Your task to perform on an android device: Open Amazon Image 0: 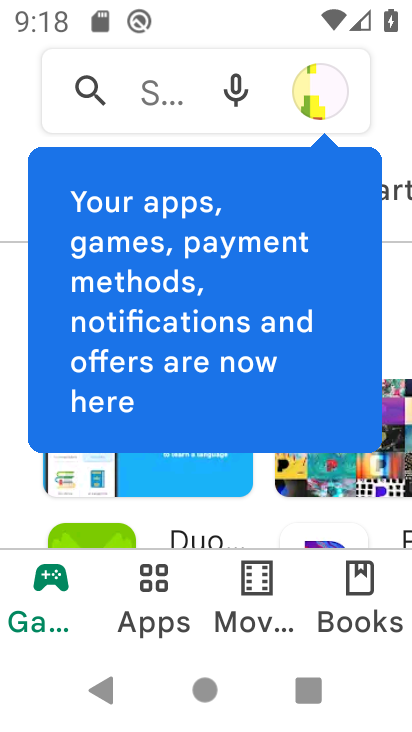
Step 0: press home button
Your task to perform on an android device: Open Amazon Image 1: 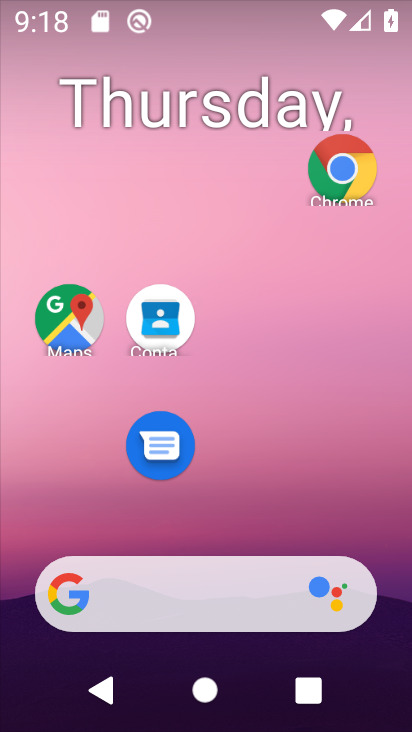
Step 1: drag from (207, 635) to (347, 215)
Your task to perform on an android device: Open Amazon Image 2: 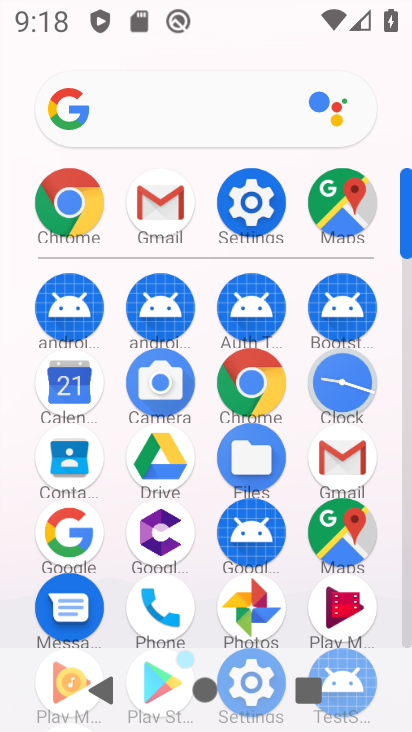
Step 2: click (54, 194)
Your task to perform on an android device: Open Amazon Image 3: 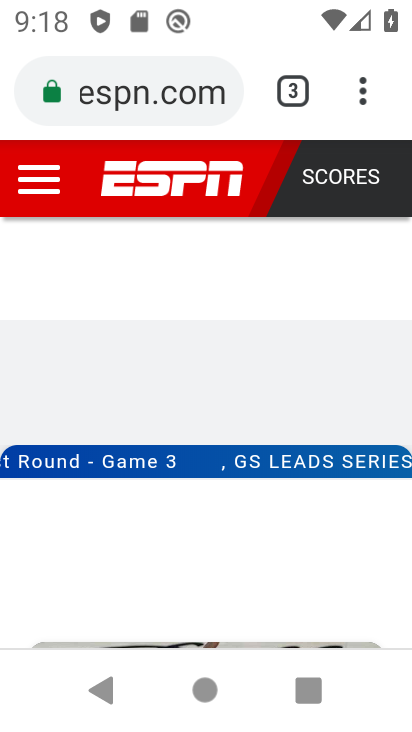
Step 3: click (172, 103)
Your task to perform on an android device: Open Amazon Image 4: 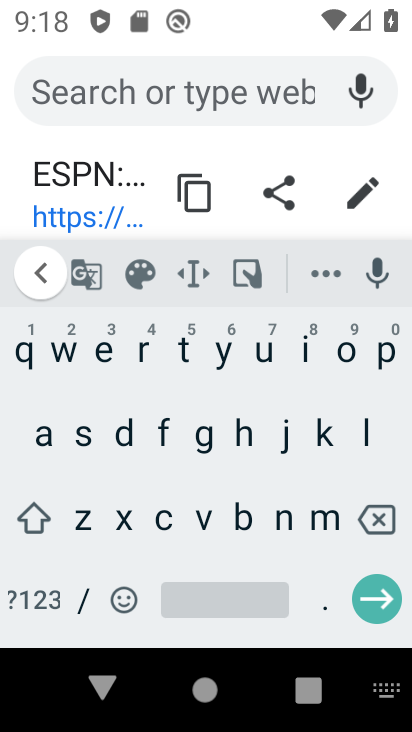
Step 4: click (42, 428)
Your task to perform on an android device: Open Amazon Image 5: 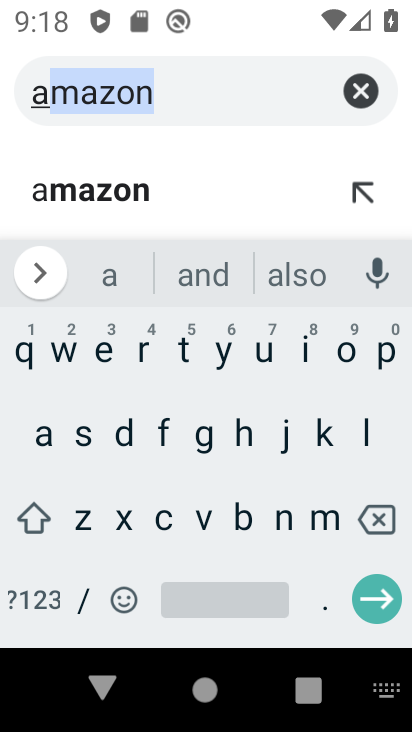
Step 5: click (207, 91)
Your task to perform on an android device: Open Amazon Image 6: 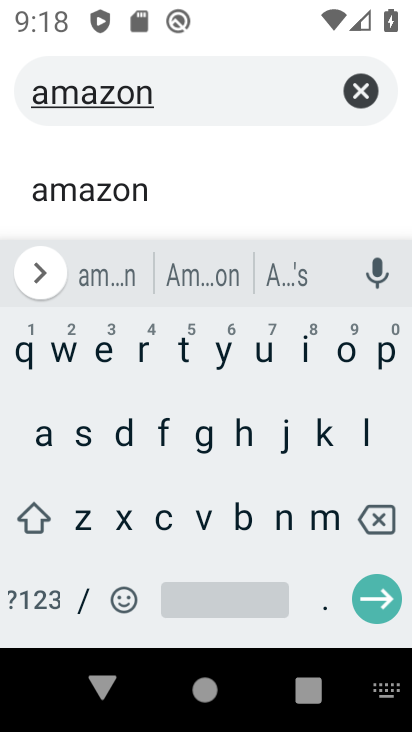
Step 6: click (390, 603)
Your task to perform on an android device: Open Amazon Image 7: 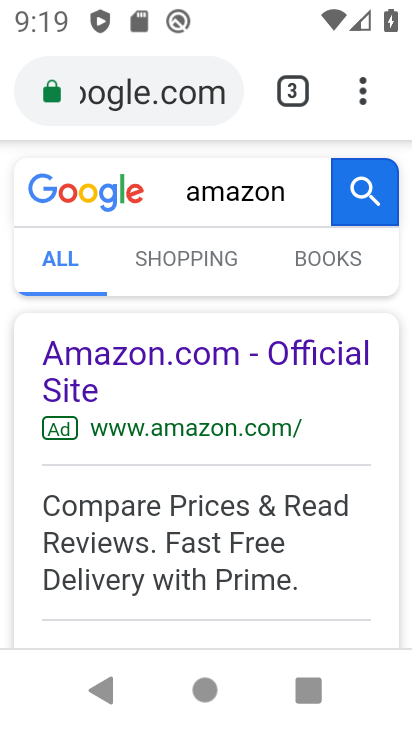
Step 7: click (137, 372)
Your task to perform on an android device: Open Amazon Image 8: 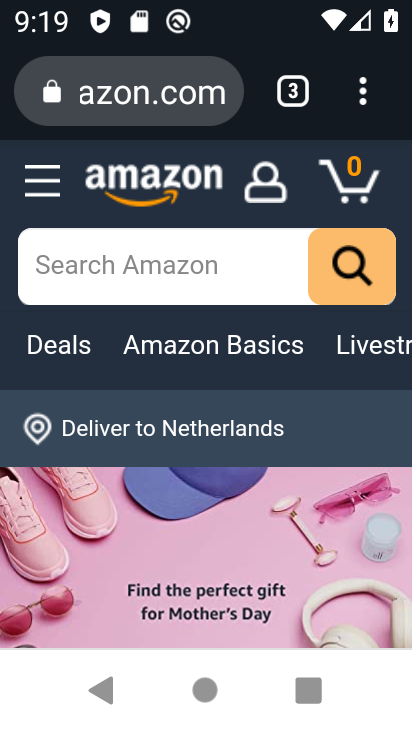
Step 8: task complete